Your task to perform on an android device: Open Chrome and go to settings Image 0: 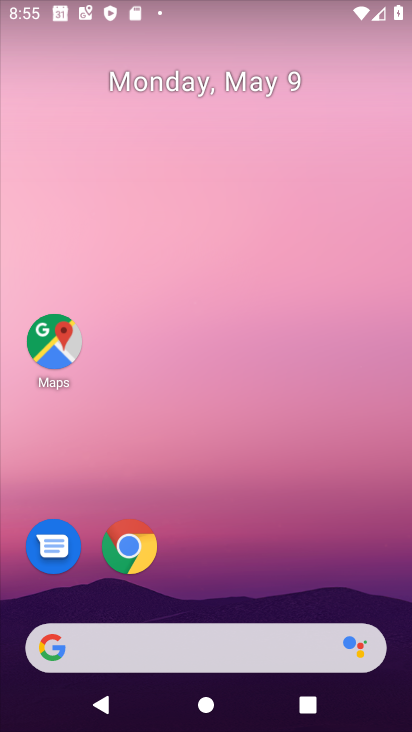
Step 0: click (129, 552)
Your task to perform on an android device: Open Chrome and go to settings Image 1: 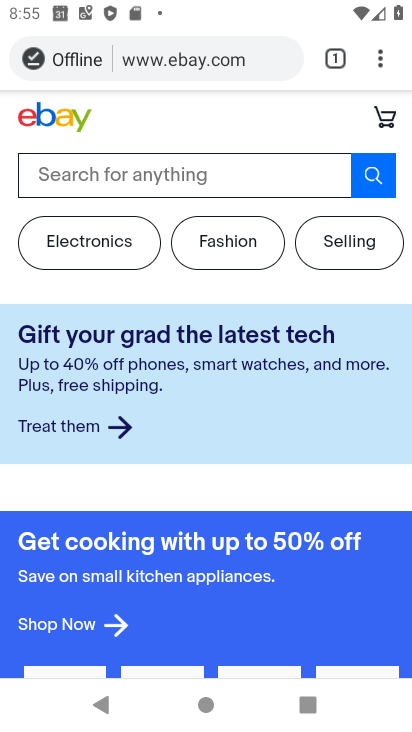
Step 1: click (375, 56)
Your task to perform on an android device: Open Chrome and go to settings Image 2: 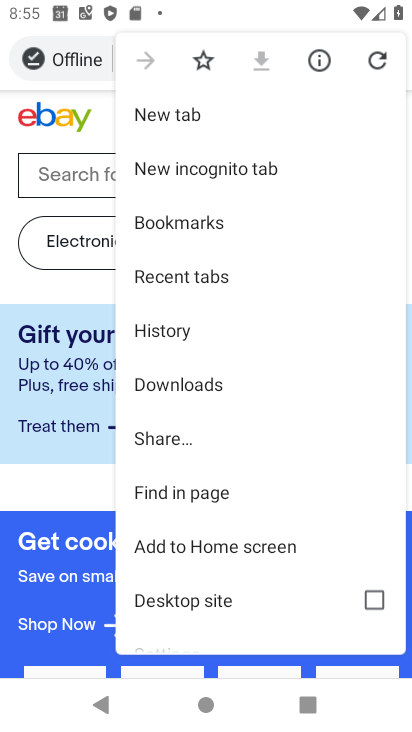
Step 2: drag from (238, 630) to (243, 246)
Your task to perform on an android device: Open Chrome and go to settings Image 3: 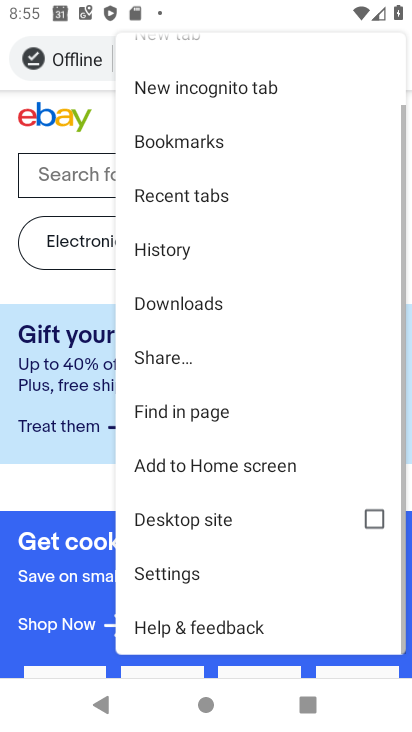
Step 3: click (205, 576)
Your task to perform on an android device: Open Chrome and go to settings Image 4: 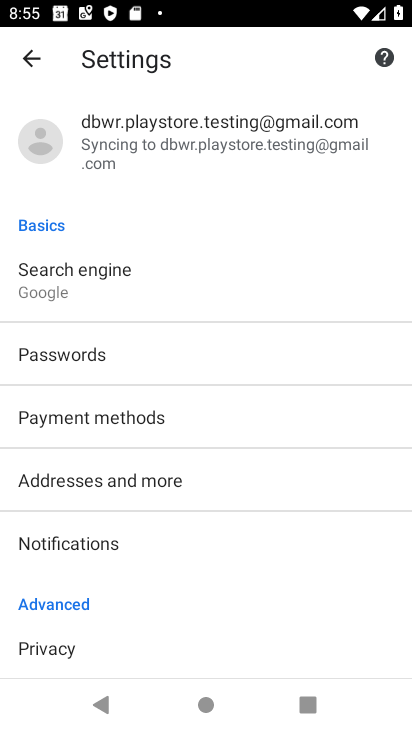
Step 4: task complete